Your task to perform on an android device: change notifications settings Image 0: 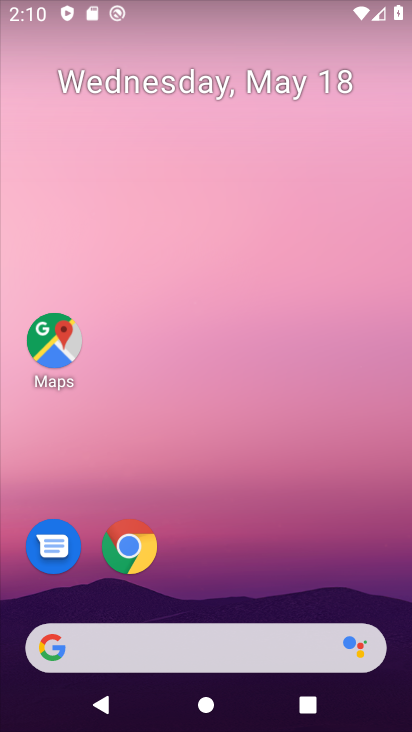
Step 0: drag from (223, 721) to (213, 206)
Your task to perform on an android device: change notifications settings Image 1: 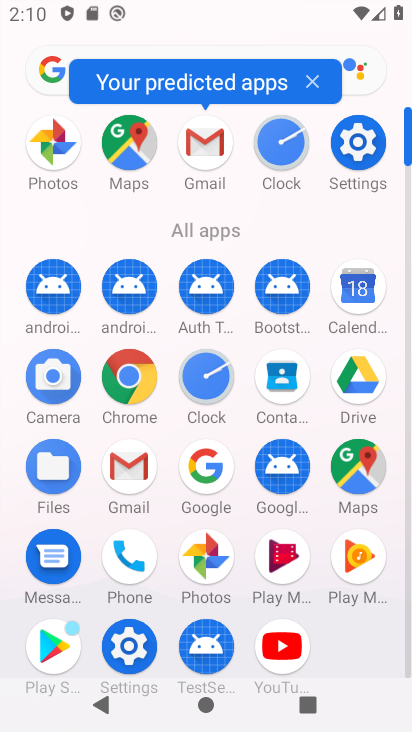
Step 1: click (348, 152)
Your task to perform on an android device: change notifications settings Image 2: 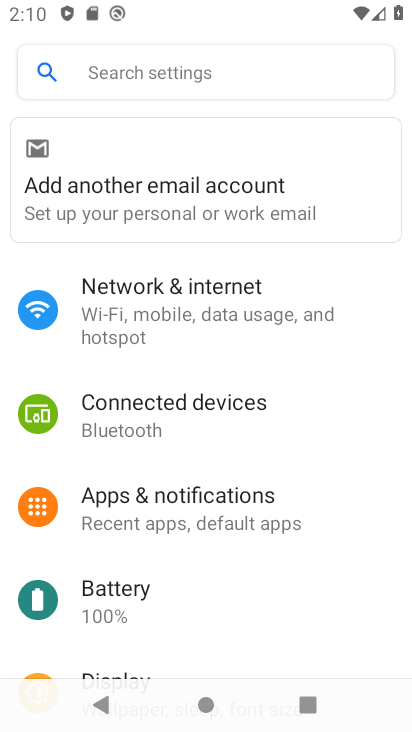
Step 2: click (176, 487)
Your task to perform on an android device: change notifications settings Image 3: 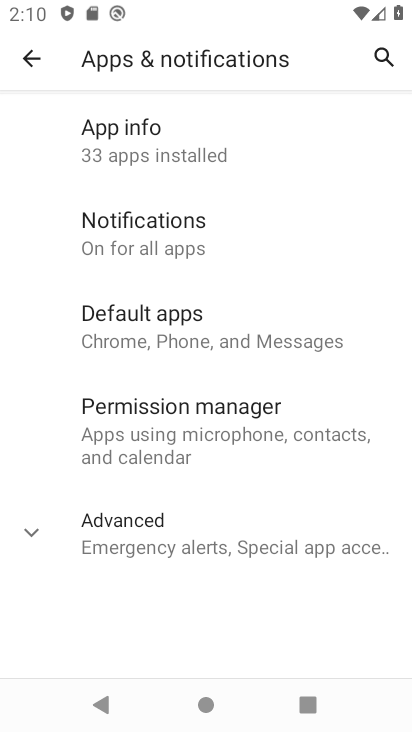
Step 3: click (120, 220)
Your task to perform on an android device: change notifications settings Image 4: 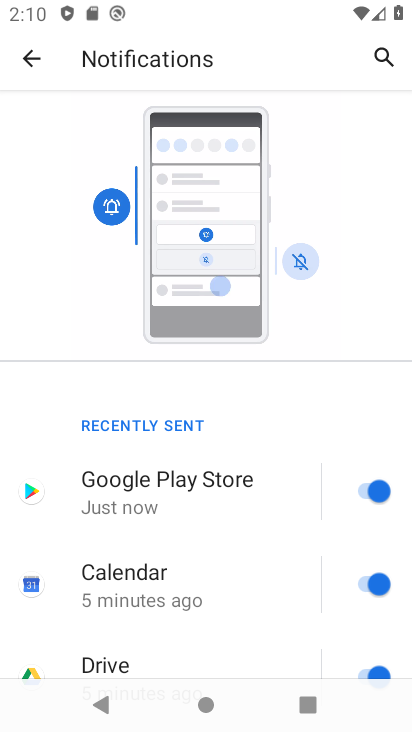
Step 4: drag from (116, 658) to (158, 259)
Your task to perform on an android device: change notifications settings Image 5: 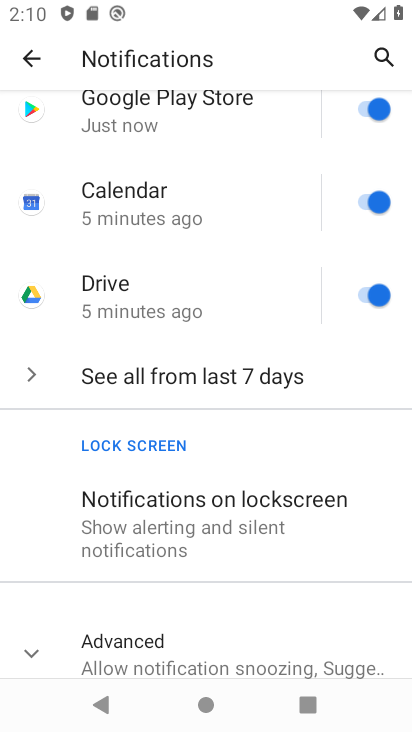
Step 5: drag from (198, 607) to (205, 327)
Your task to perform on an android device: change notifications settings Image 6: 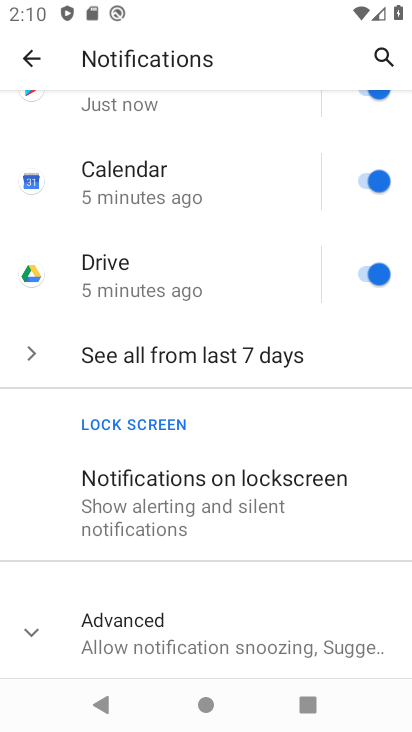
Step 6: click (128, 615)
Your task to perform on an android device: change notifications settings Image 7: 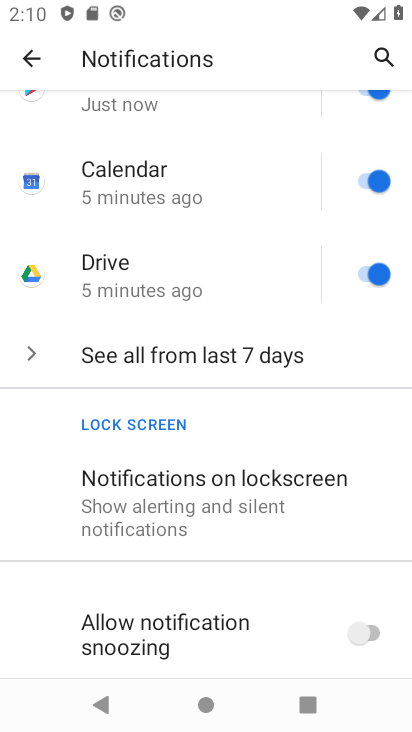
Step 7: drag from (293, 644) to (286, 313)
Your task to perform on an android device: change notifications settings Image 8: 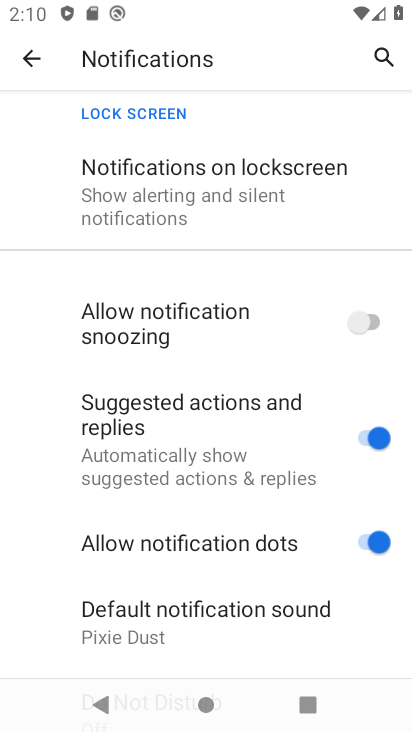
Step 8: click (368, 318)
Your task to perform on an android device: change notifications settings Image 9: 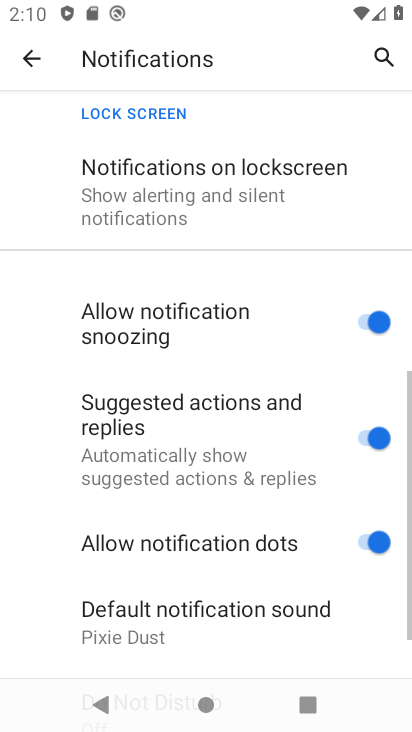
Step 9: task complete